Your task to perform on an android device: Open Chrome and go to settings Image 0: 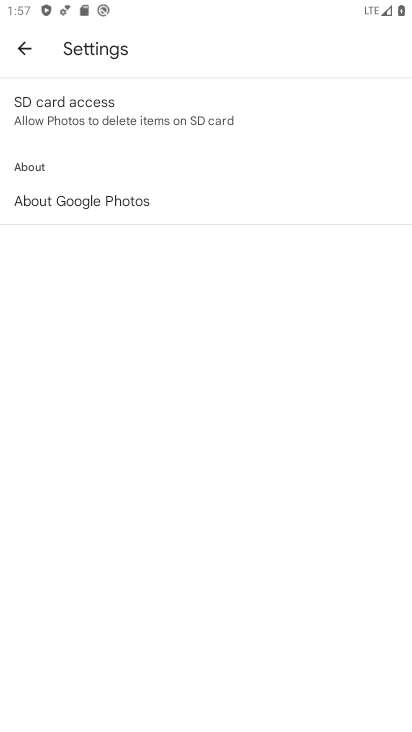
Step 0: press home button
Your task to perform on an android device: Open Chrome and go to settings Image 1: 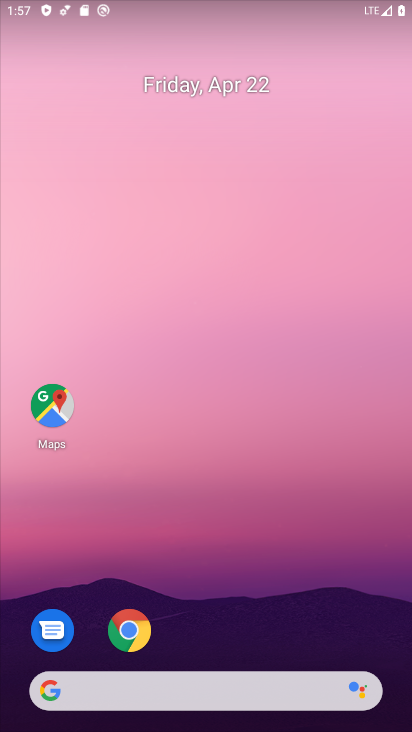
Step 1: drag from (328, 557) to (300, 187)
Your task to perform on an android device: Open Chrome and go to settings Image 2: 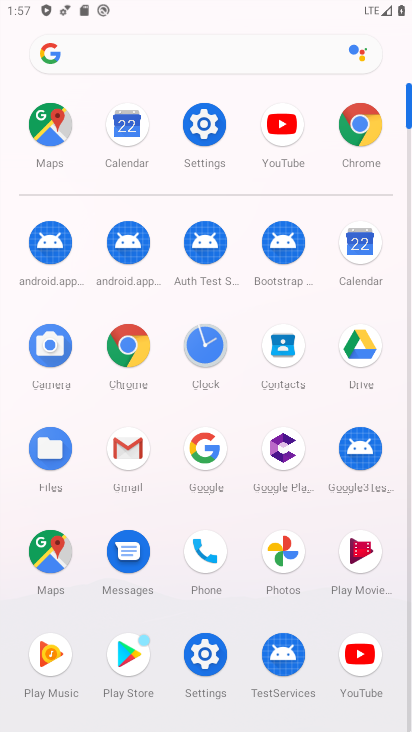
Step 2: click (141, 341)
Your task to perform on an android device: Open Chrome and go to settings Image 3: 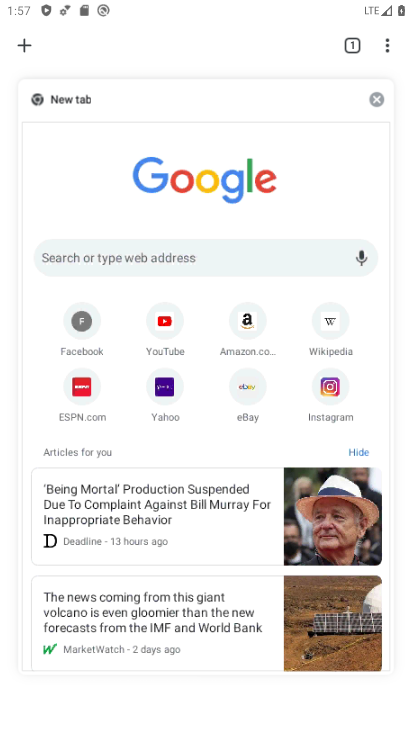
Step 3: task complete